Your task to perform on an android device: Clear the cart on target. Search for "bose soundlink" on target, select the first entry, and add it to the cart. Image 0: 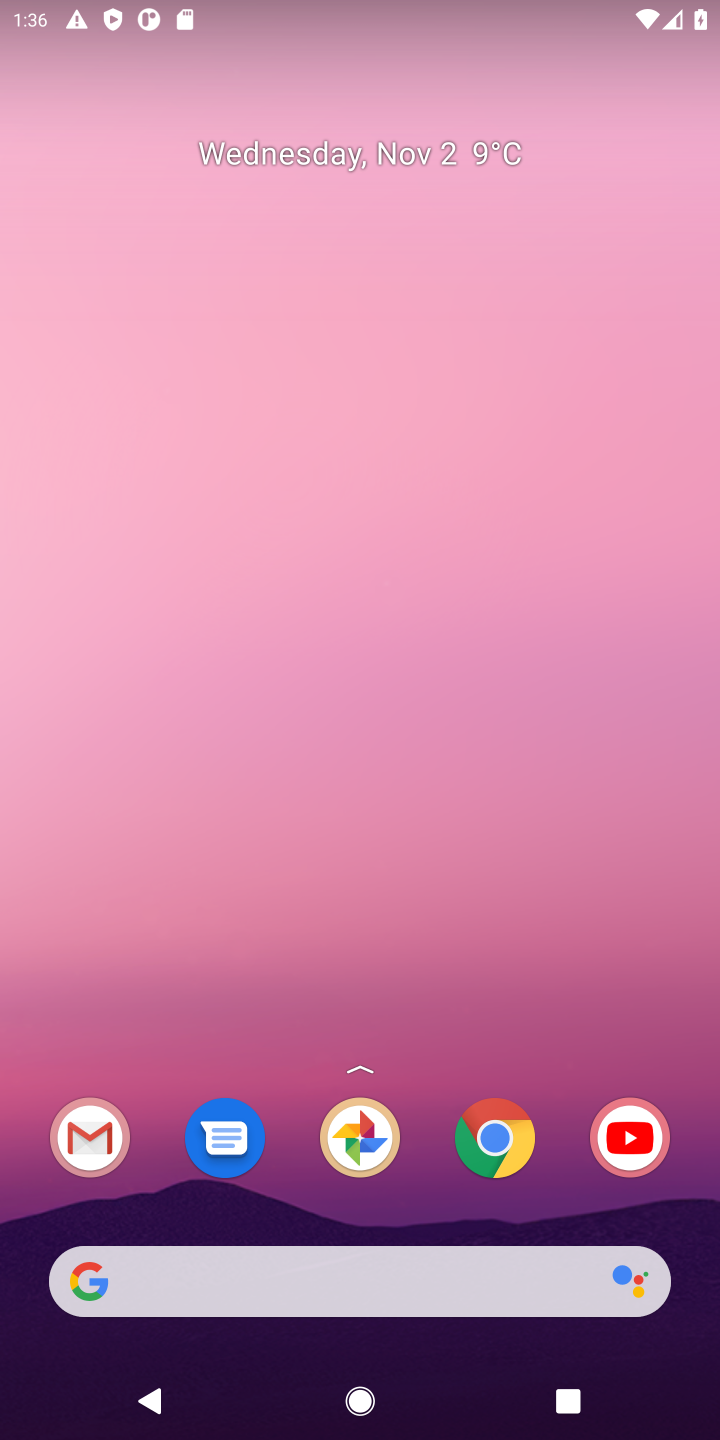
Step 0: click (500, 1133)
Your task to perform on an android device: Clear the cart on target. Search for "bose soundlink" on target, select the first entry, and add it to the cart. Image 1: 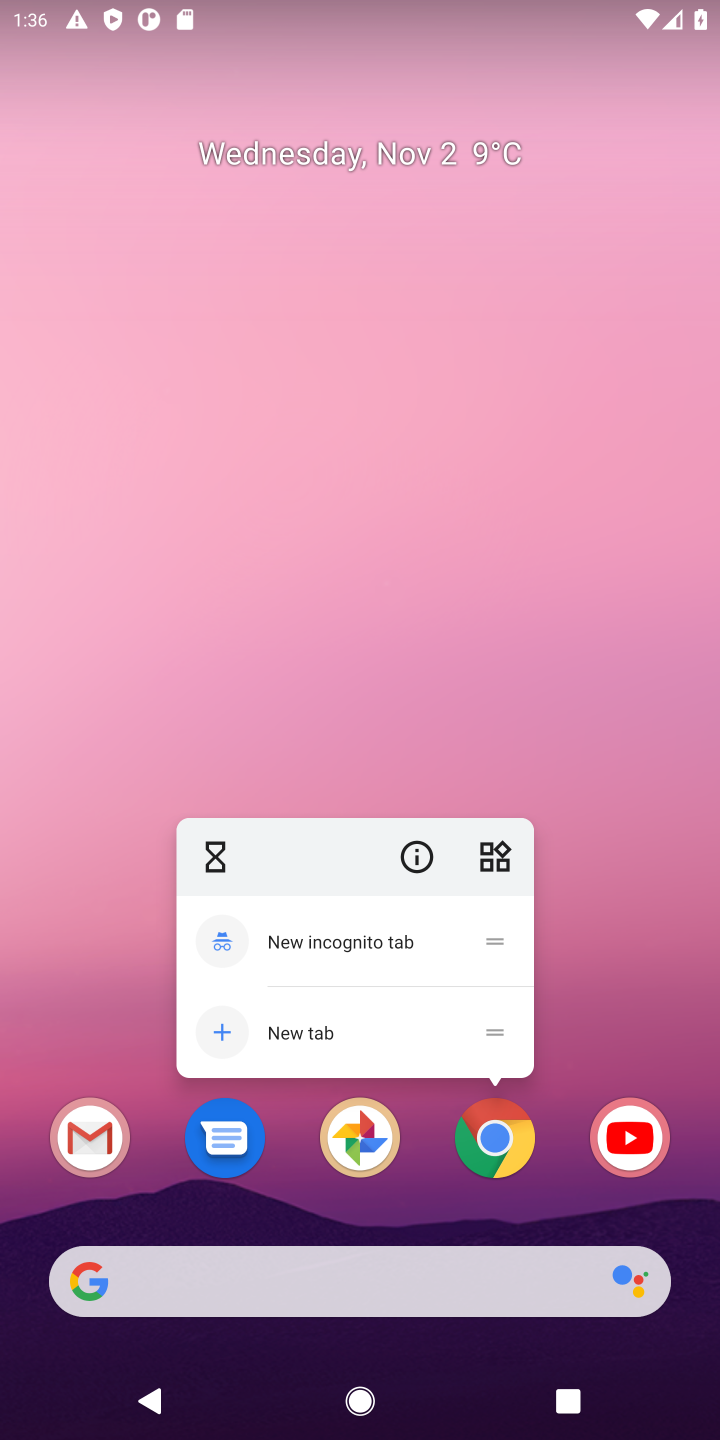
Step 1: click (511, 1135)
Your task to perform on an android device: Clear the cart on target. Search for "bose soundlink" on target, select the first entry, and add it to the cart. Image 2: 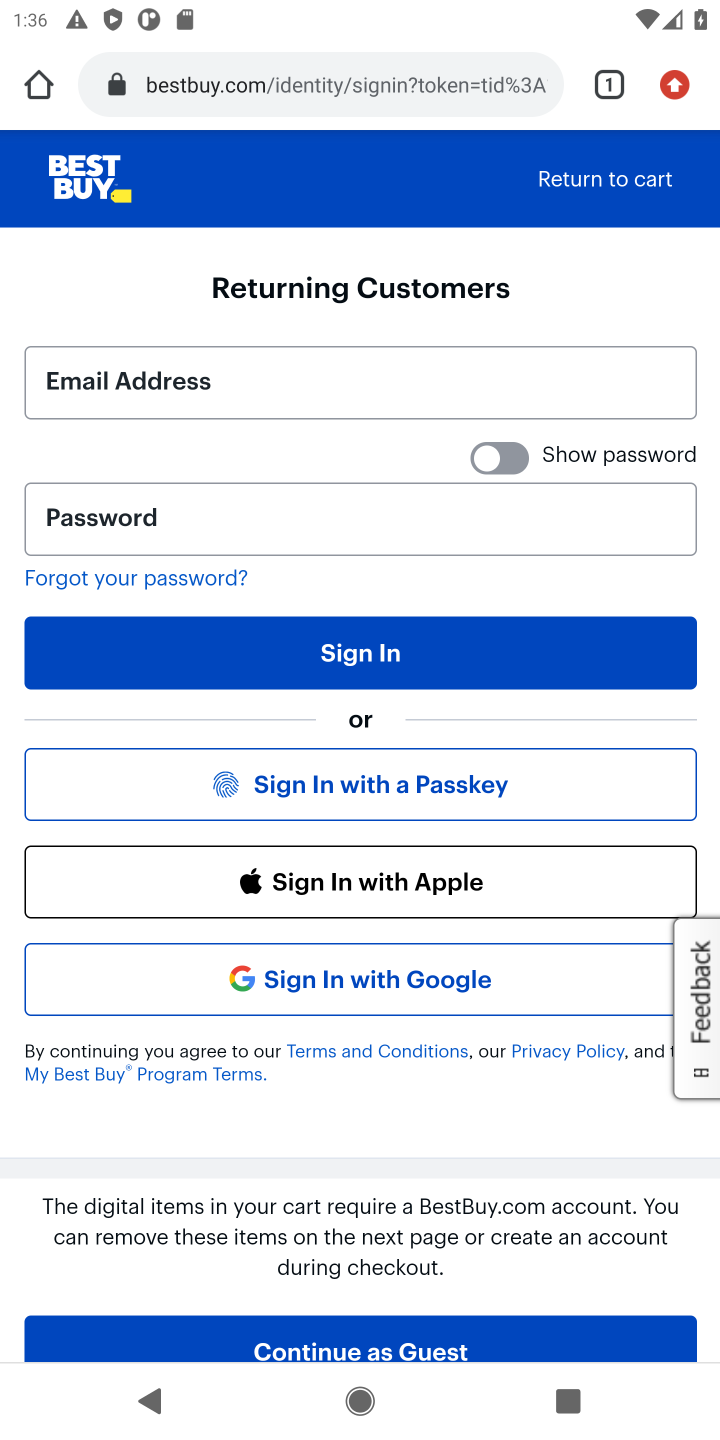
Step 2: click (289, 86)
Your task to perform on an android device: Clear the cart on target. Search for "bose soundlink" on target, select the first entry, and add it to the cart. Image 3: 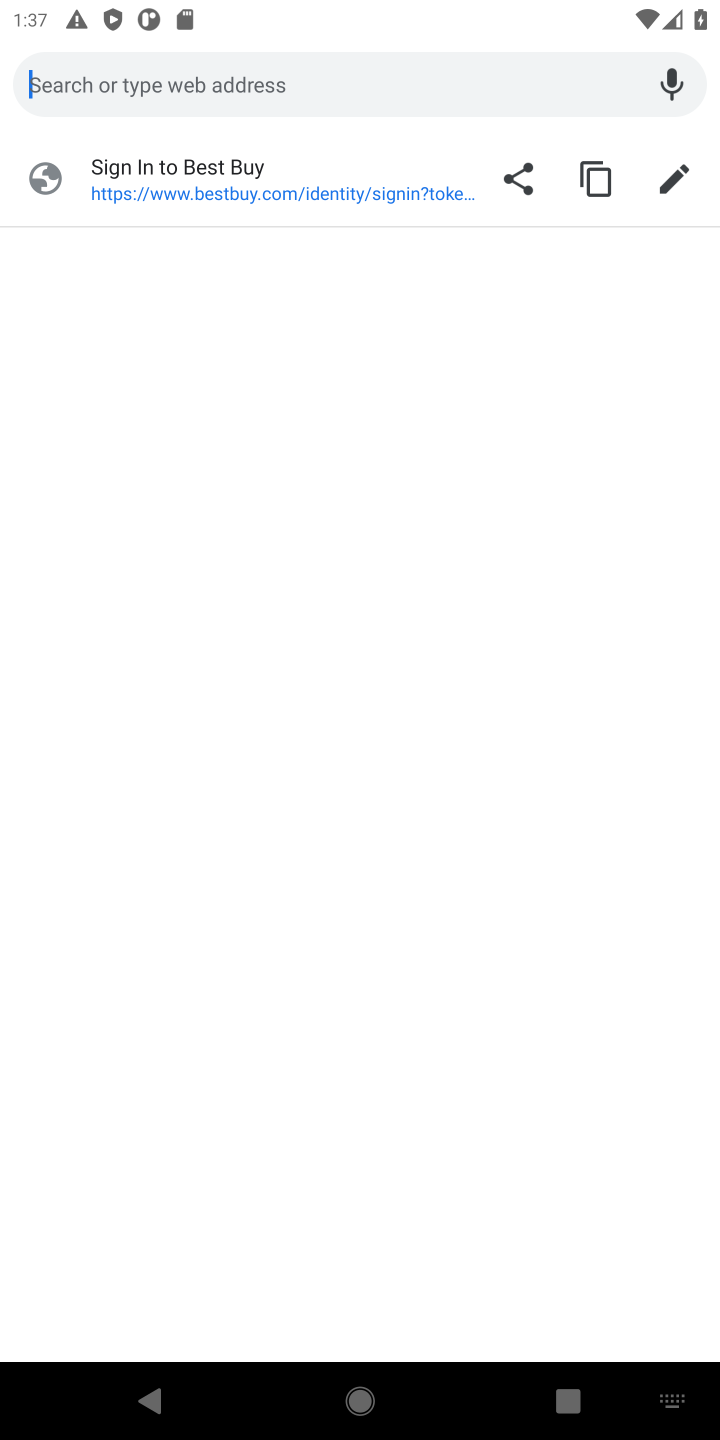
Step 3: type "target"
Your task to perform on an android device: Clear the cart on target. Search for "bose soundlink" on target, select the first entry, and add it to the cart. Image 4: 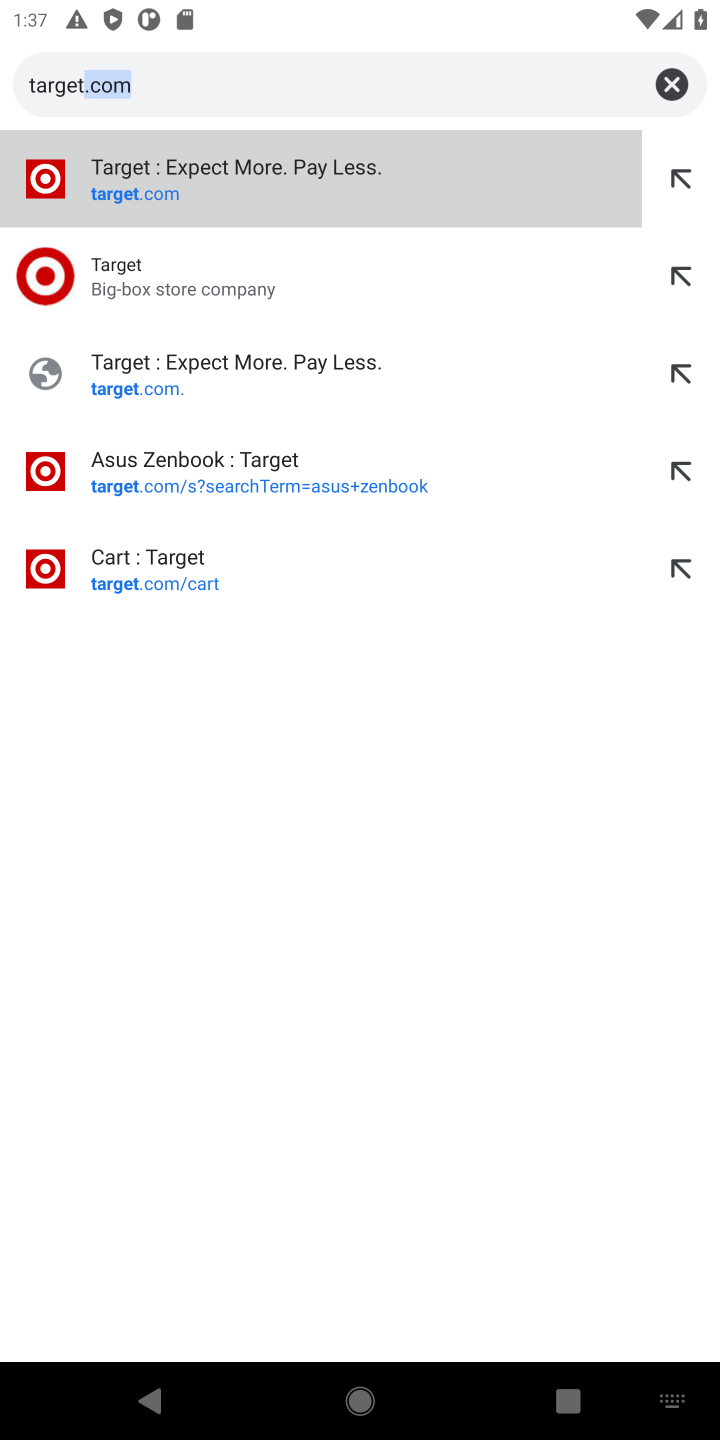
Step 4: click (166, 258)
Your task to perform on an android device: Clear the cart on target. Search for "bose soundlink" on target, select the first entry, and add it to the cart. Image 5: 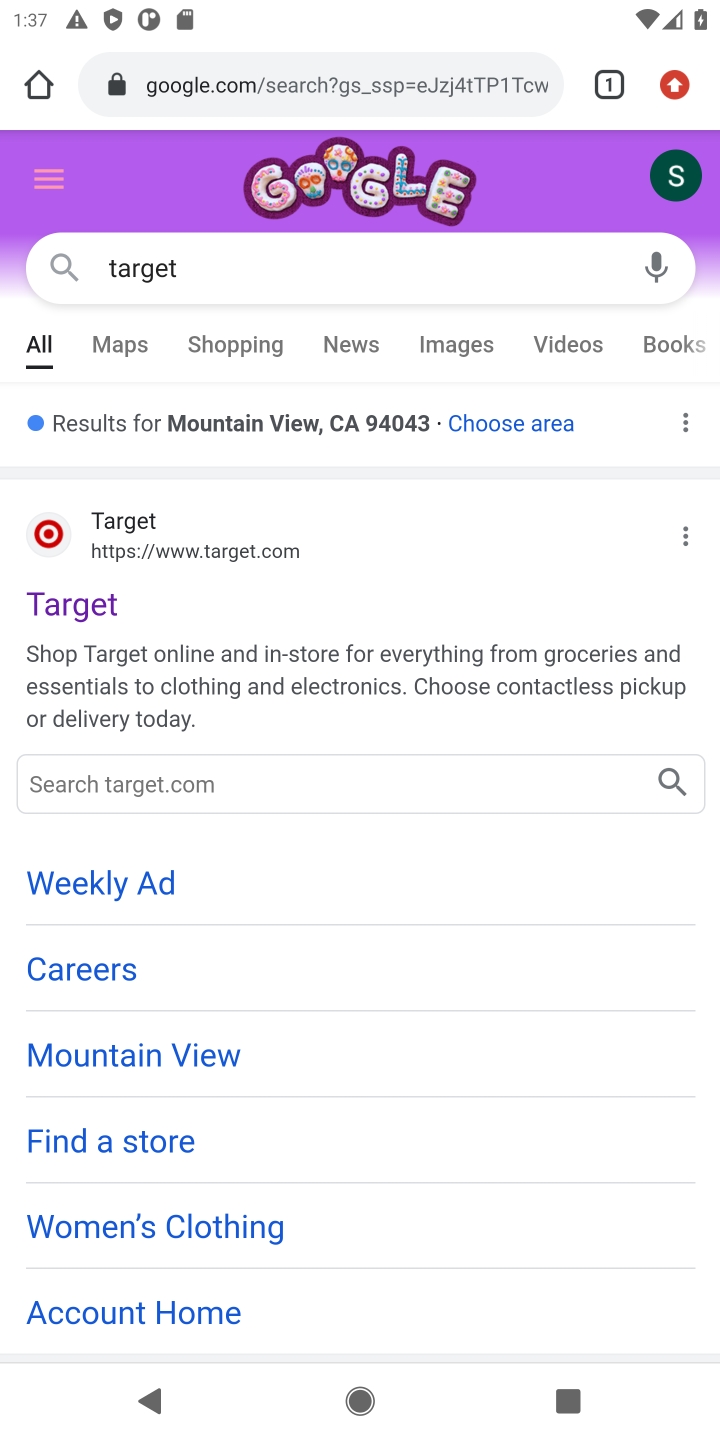
Step 5: click (70, 594)
Your task to perform on an android device: Clear the cart on target. Search for "bose soundlink" on target, select the first entry, and add it to the cart. Image 6: 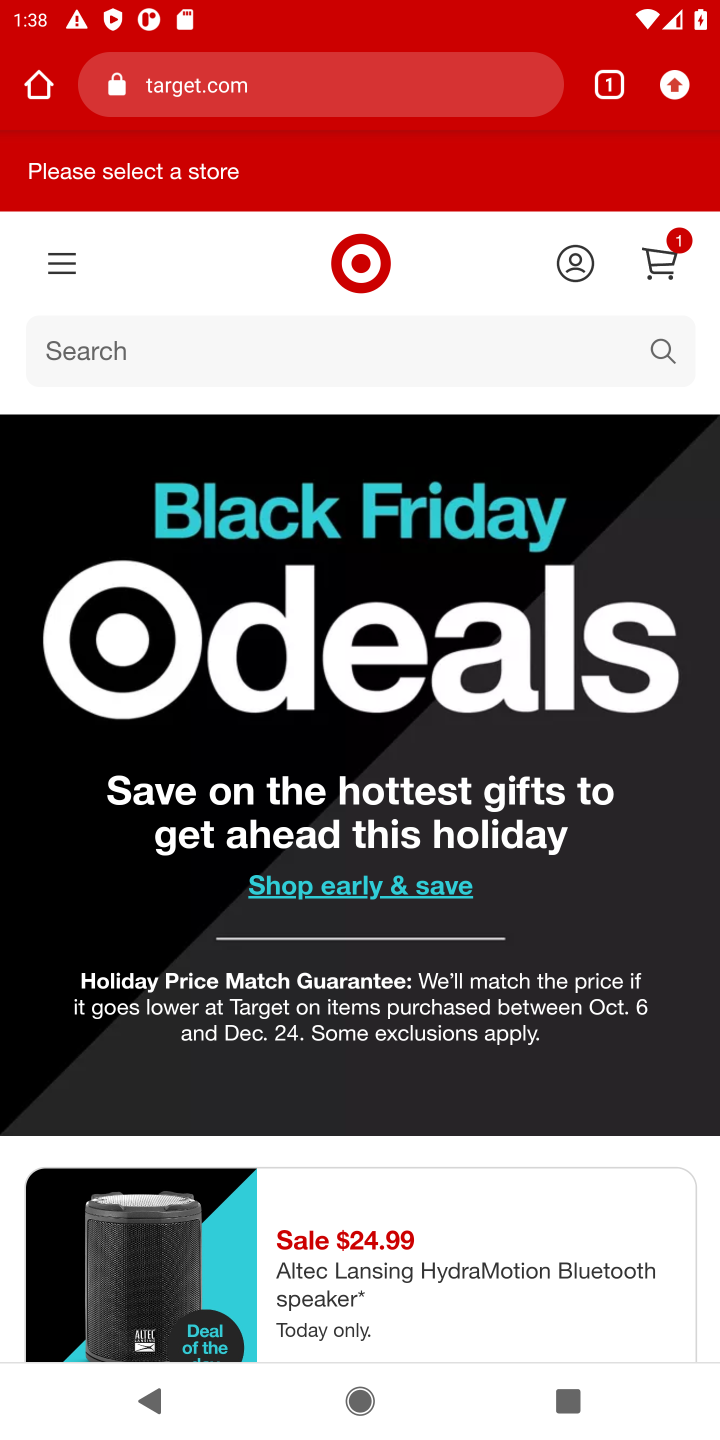
Step 6: click (377, 337)
Your task to perform on an android device: Clear the cart on target. Search for "bose soundlink" on target, select the first entry, and add it to the cart. Image 7: 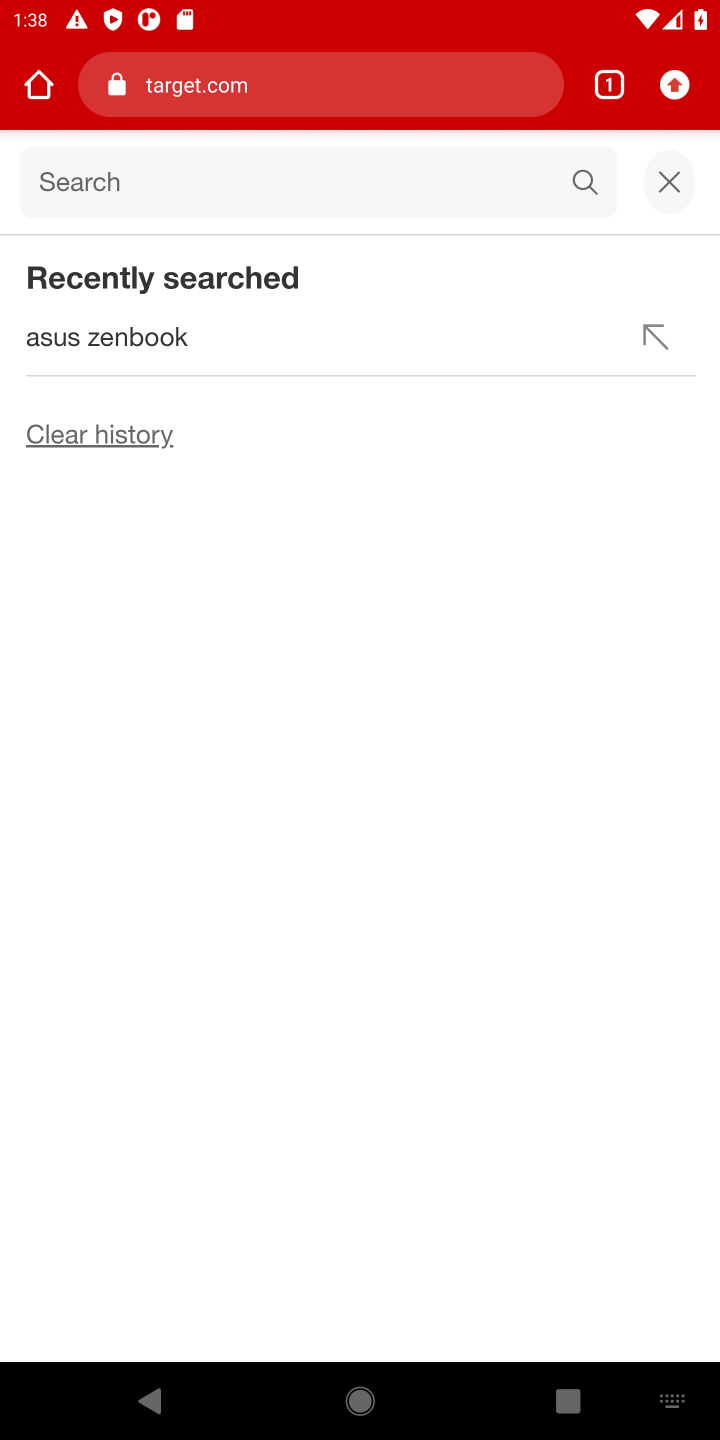
Step 7: type "bose soundlink"
Your task to perform on an android device: Clear the cart on target. Search for "bose soundlink" on target, select the first entry, and add it to the cart. Image 8: 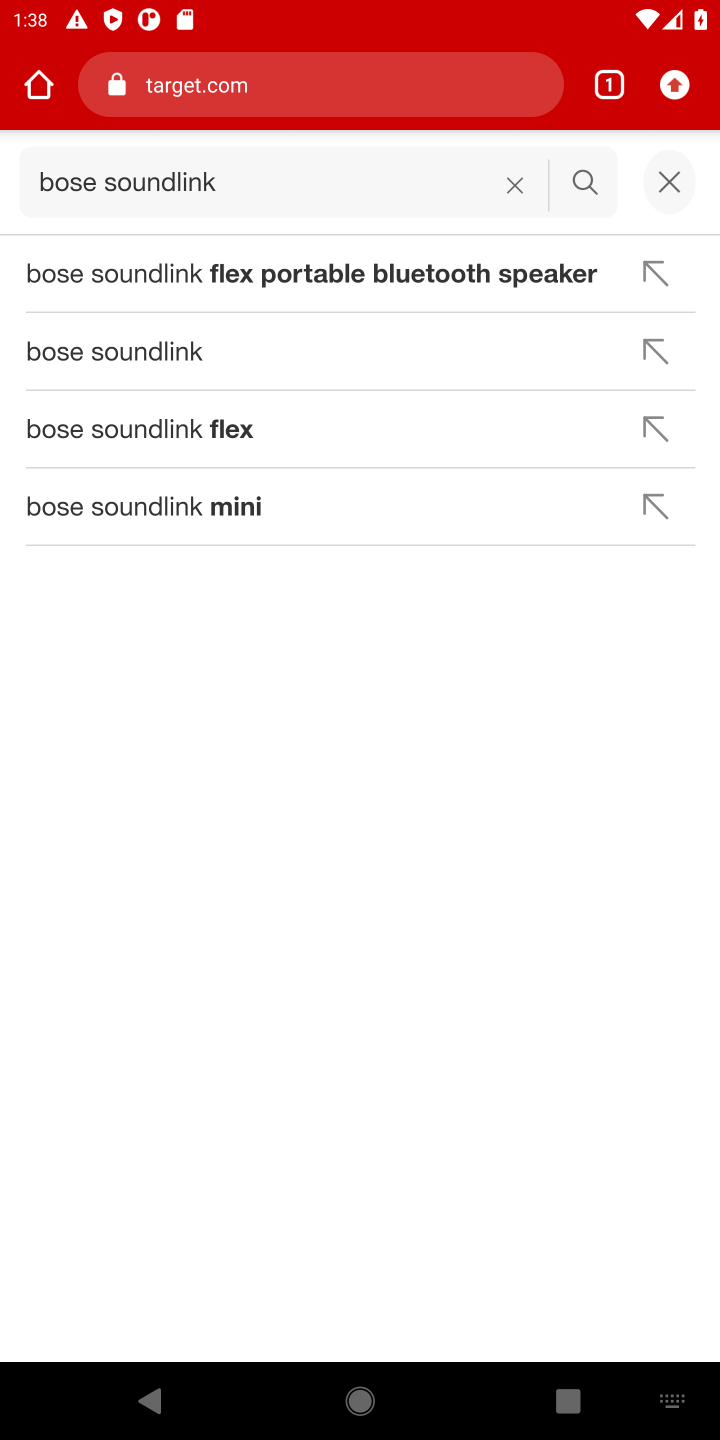
Step 8: click (208, 346)
Your task to perform on an android device: Clear the cart on target. Search for "bose soundlink" on target, select the first entry, and add it to the cart. Image 9: 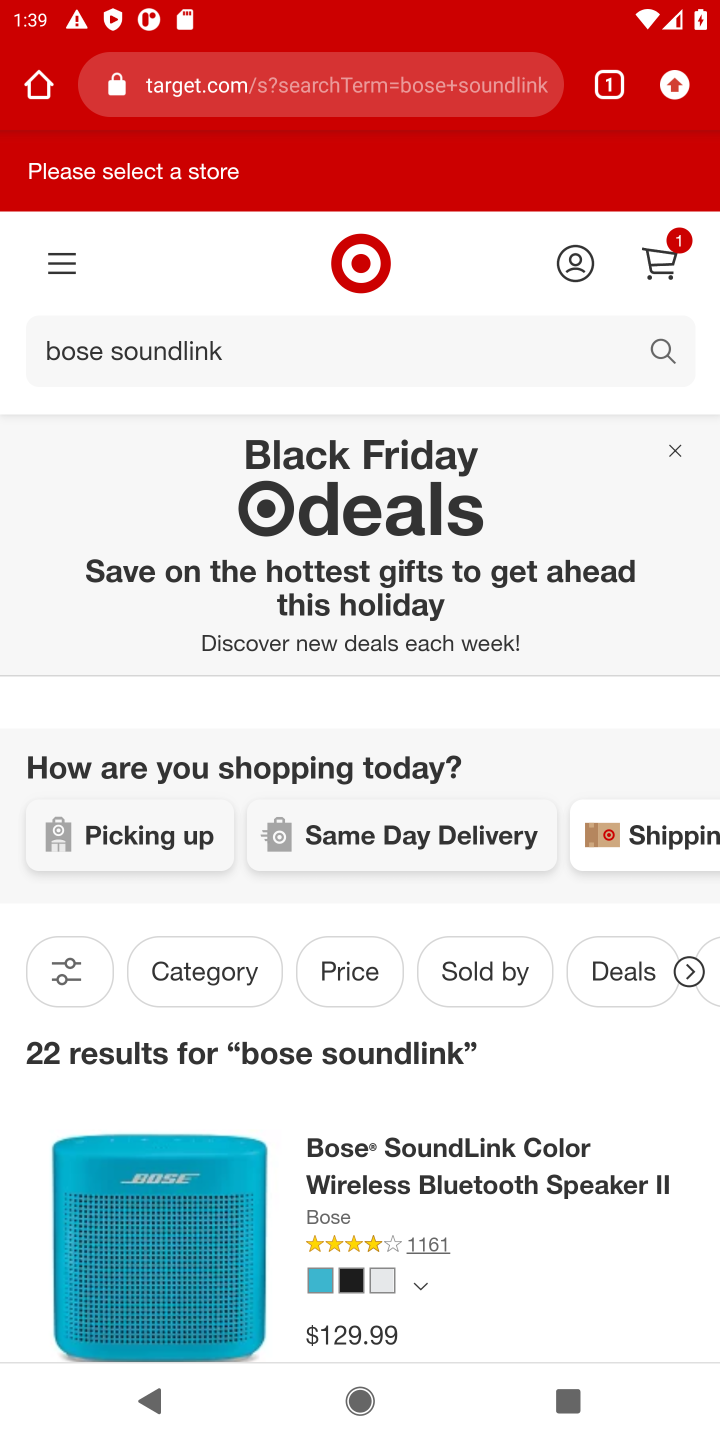
Step 9: drag from (477, 1232) to (585, 490)
Your task to perform on an android device: Clear the cart on target. Search for "bose soundlink" on target, select the first entry, and add it to the cart. Image 10: 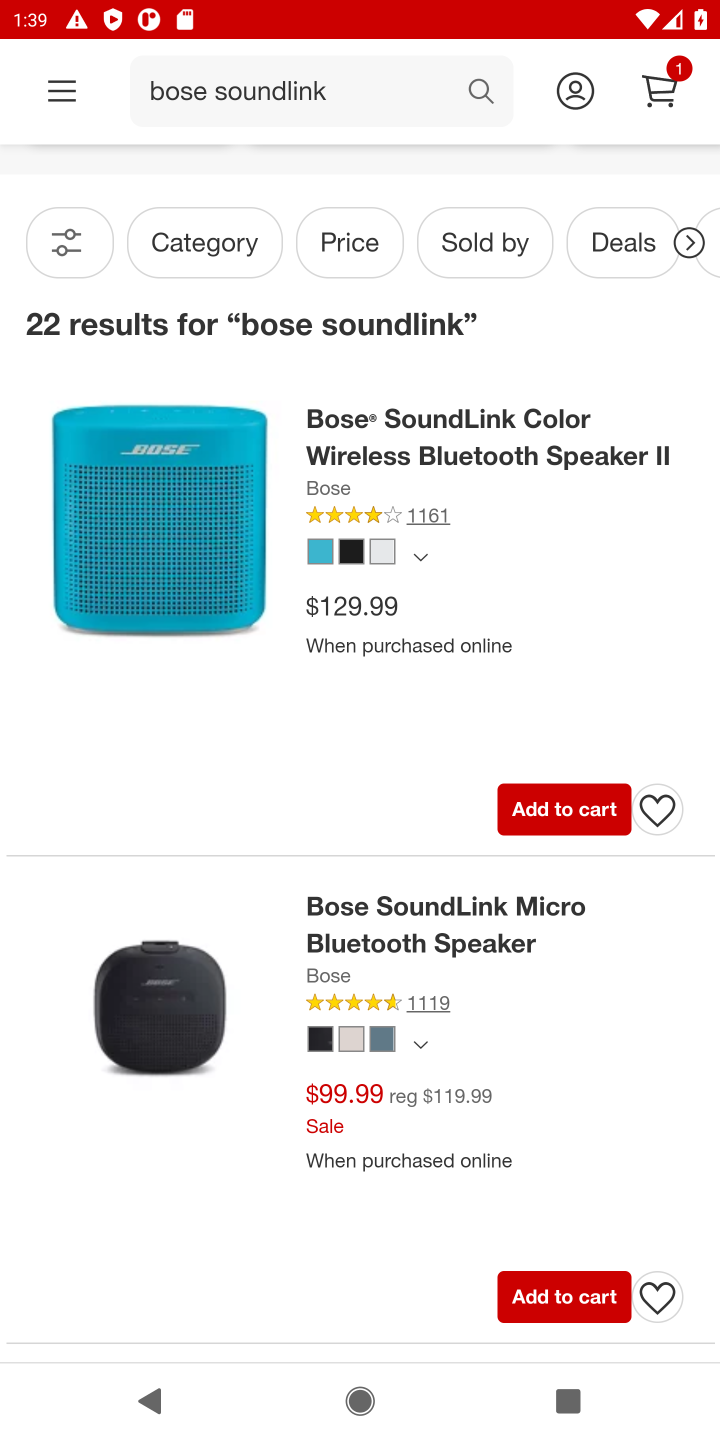
Step 10: drag from (292, 917) to (366, 627)
Your task to perform on an android device: Clear the cart on target. Search for "bose soundlink" on target, select the first entry, and add it to the cart. Image 11: 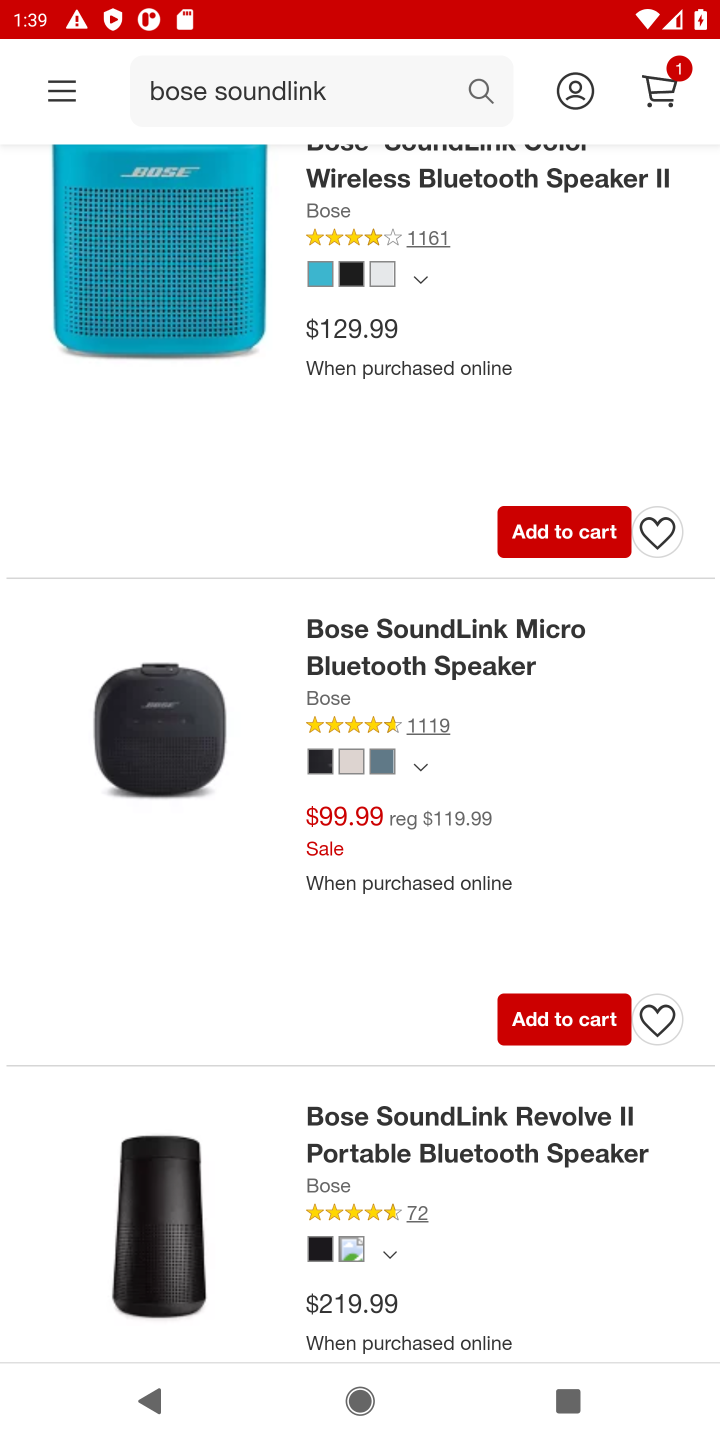
Step 11: click (578, 806)
Your task to perform on an android device: Clear the cart on target. Search for "bose soundlink" on target, select the first entry, and add it to the cart. Image 12: 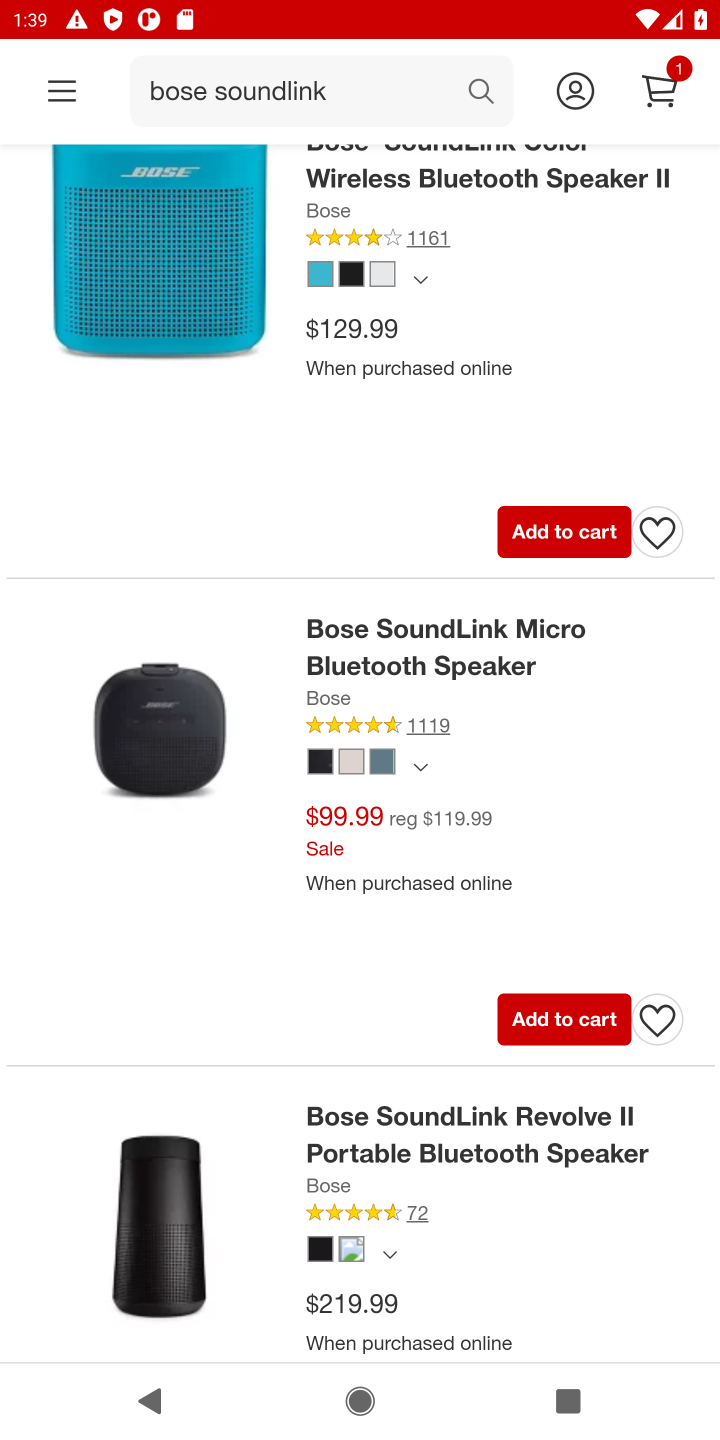
Step 12: click (549, 522)
Your task to perform on an android device: Clear the cart on target. Search for "bose soundlink" on target, select the first entry, and add it to the cart. Image 13: 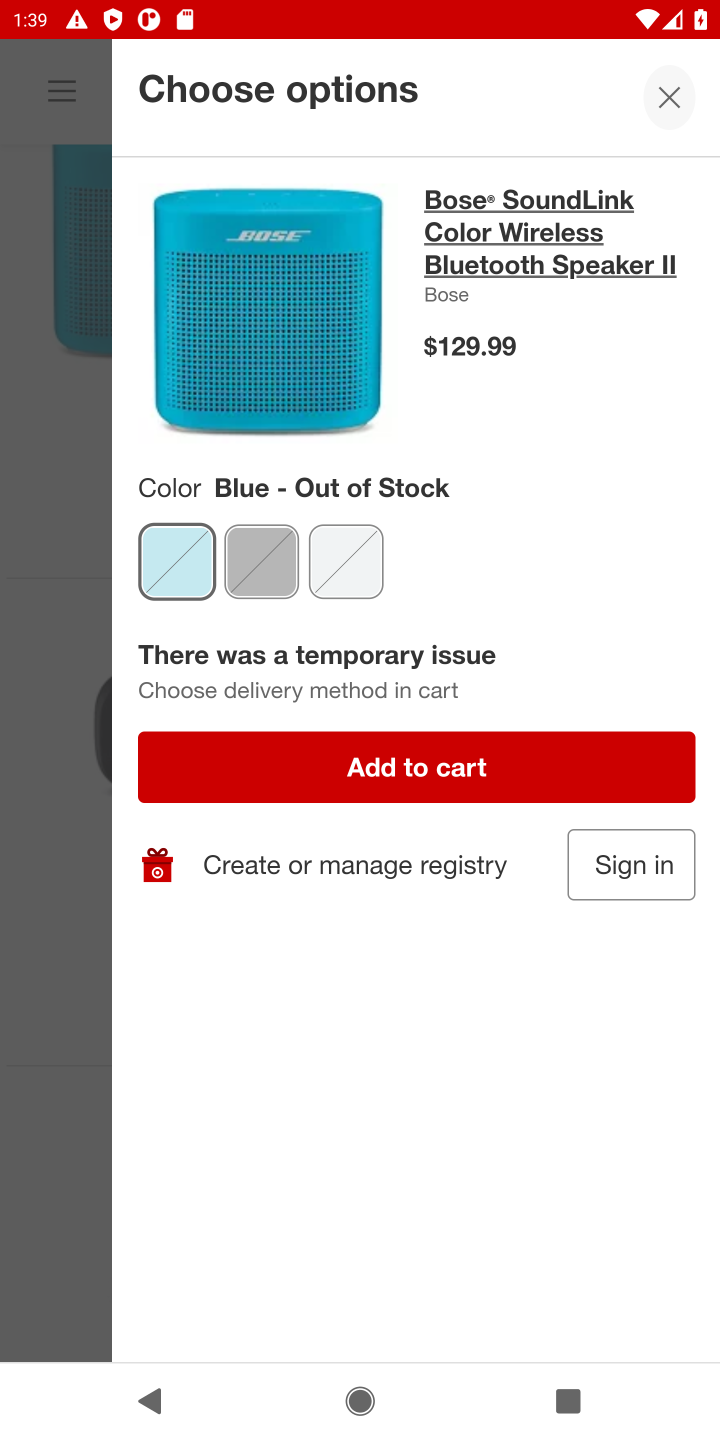
Step 13: click (225, 793)
Your task to perform on an android device: Clear the cart on target. Search for "bose soundlink" on target, select the first entry, and add it to the cart. Image 14: 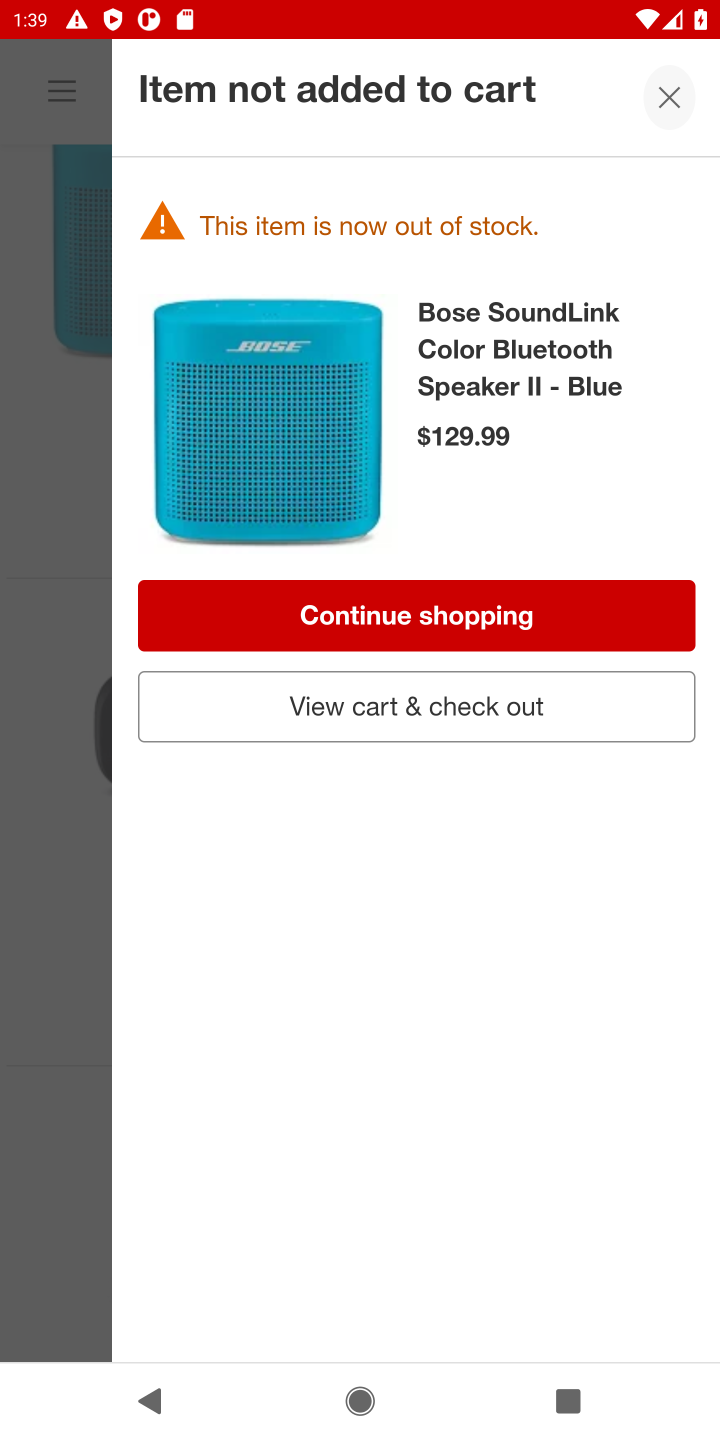
Step 14: click (271, 531)
Your task to perform on an android device: Clear the cart on target. Search for "bose soundlink" on target, select the first entry, and add it to the cart. Image 15: 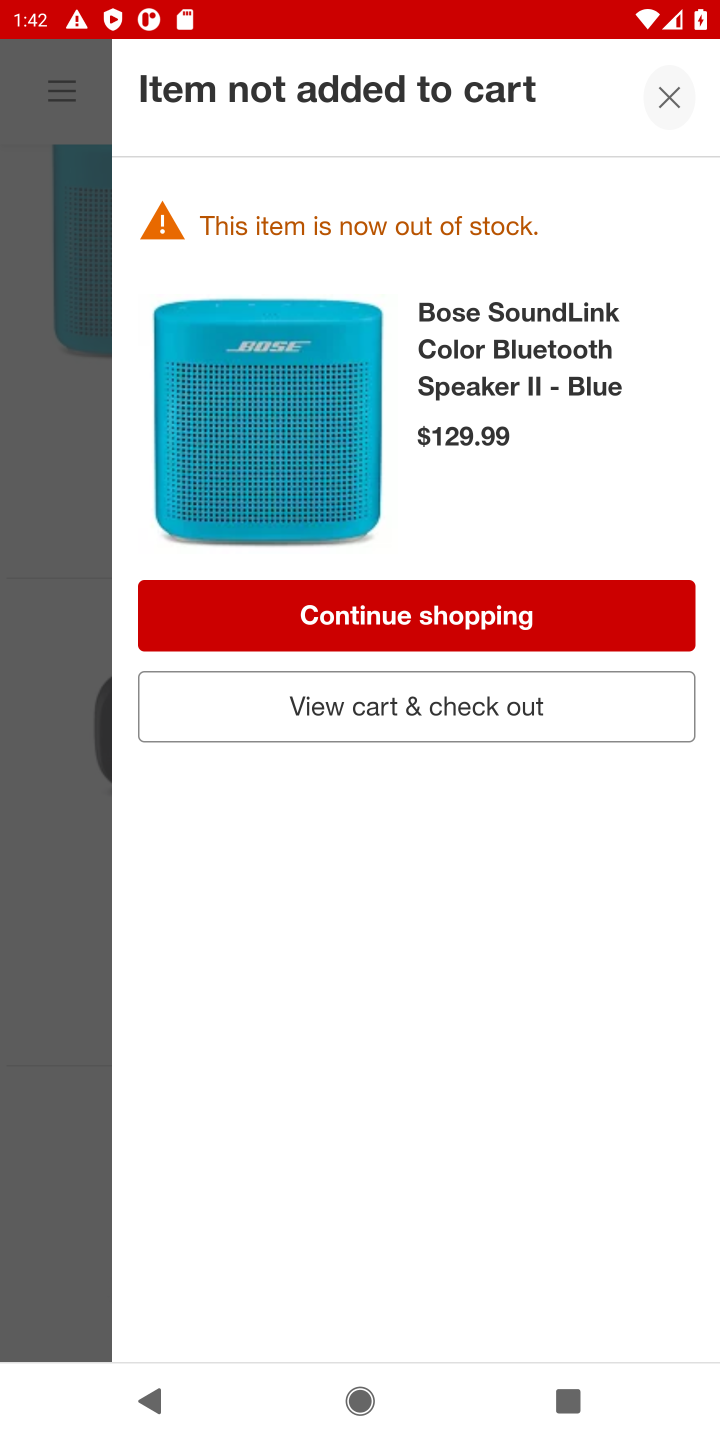
Step 15: task complete